Your task to perform on an android device: Open calendar and show me the fourth week of next month Image 0: 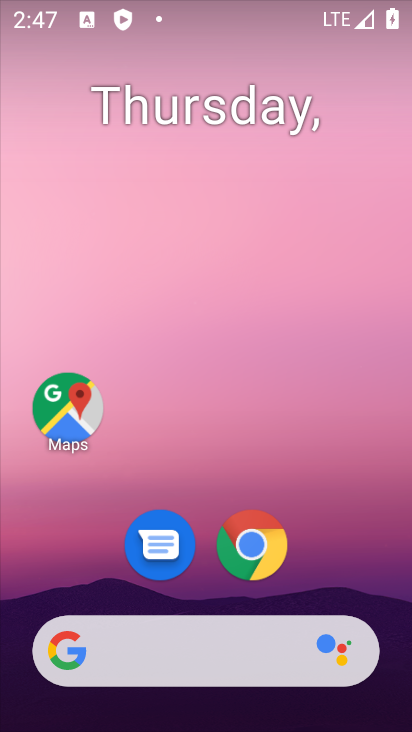
Step 0: drag from (303, 635) to (290, 52)
Your task to perform on an android device: Open calendar and show me the fourth week of next month Image 1: 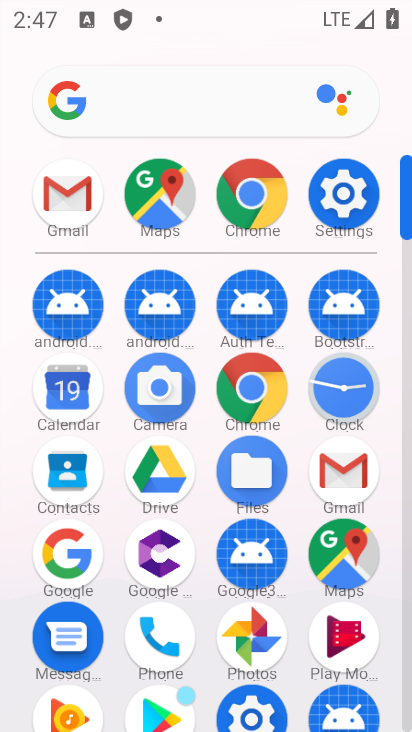
Step 1: click (88, 411)
Your task to perform on an android device: Open calendar and show me the fourth week of next month Image 2: 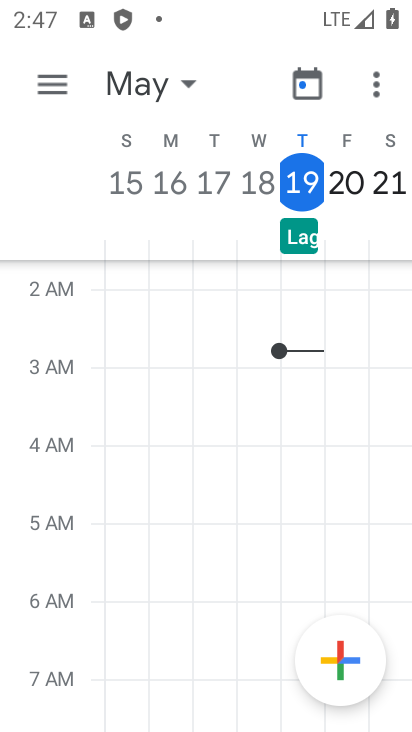
Step 2: click (192, 80)
Your task to perform on an android device: Open calendar and show me the fourth week of next month Image 3: 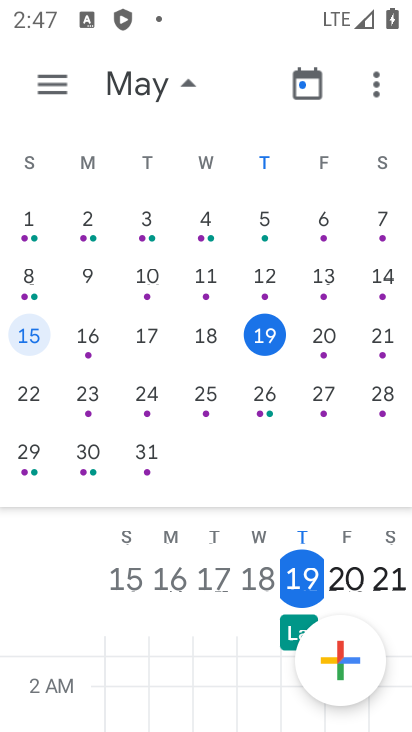
Step 3: drag from (311, 361) to (3, 376)
Your task to perform on an android device: Open calendar and show me the fourth week of next month Image 4: 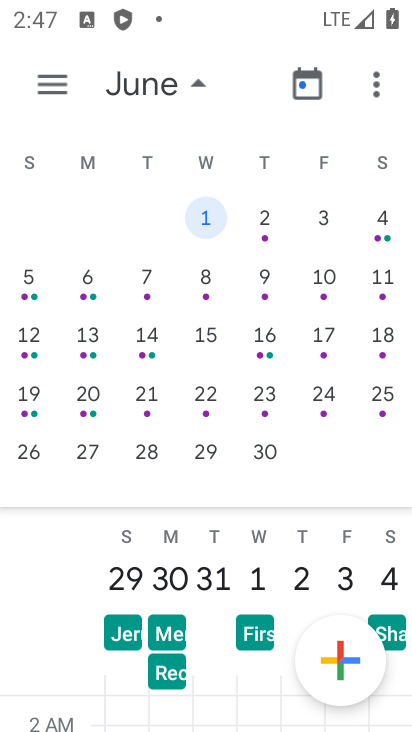
Step 4: click (257, 393)
Your task to perform on an android device: Open calendar and show me the fourth week of next month Image 5: 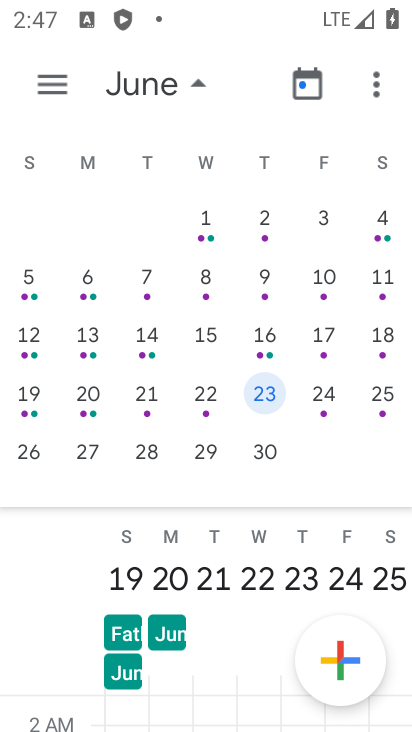
Step 5: task complete